Your task to perform on an android device: Open Google Maps Image 0: 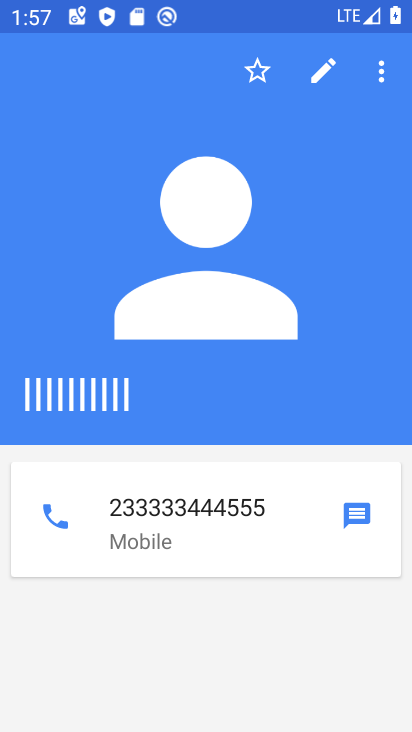
Step 0: press home button
Your task to perform on an android device: Open Google Maps Image 1: 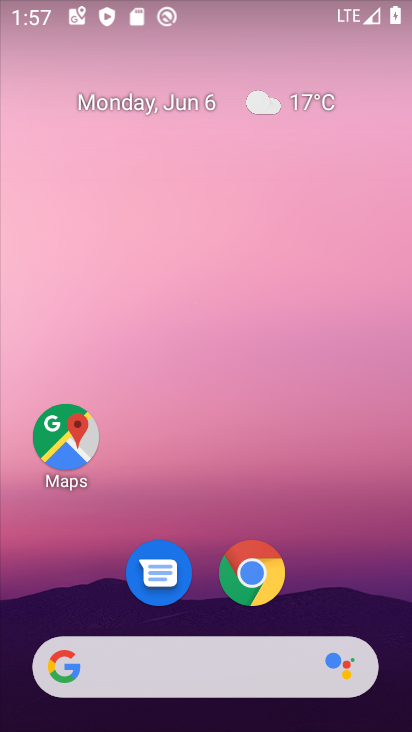
Step 1: drag from (361, 595) to (359, 76)
Your task to perform on an android device: Open Google Maps Image 2: 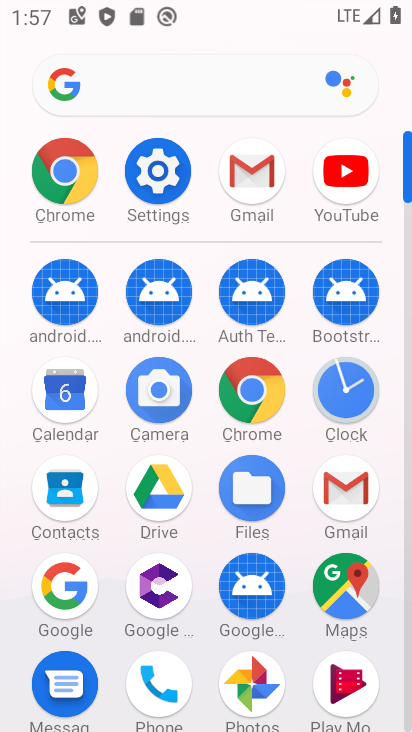
Step 2: click (354, 579)
Your task to perform on an android device: Open Google Maps Image 3: 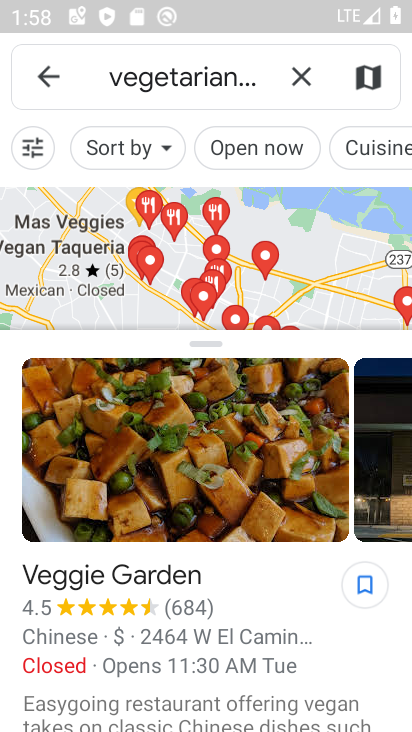
Step 3: task complete